Your task to perform on an android device: change keyboard looks Image 0: 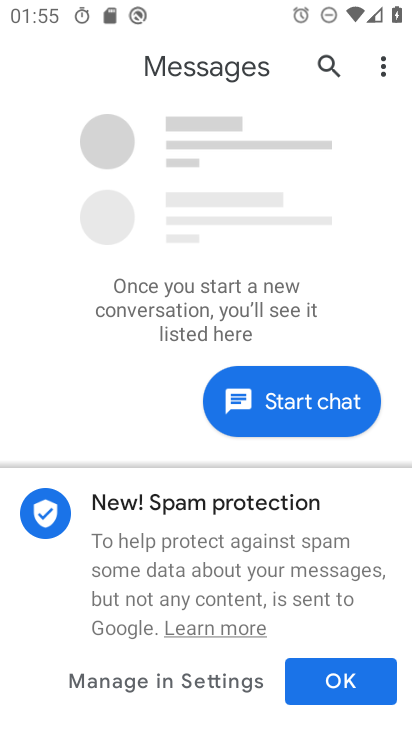
Step 0: press home button
Your task to perform on an android device: change keyboard looks Image 1: 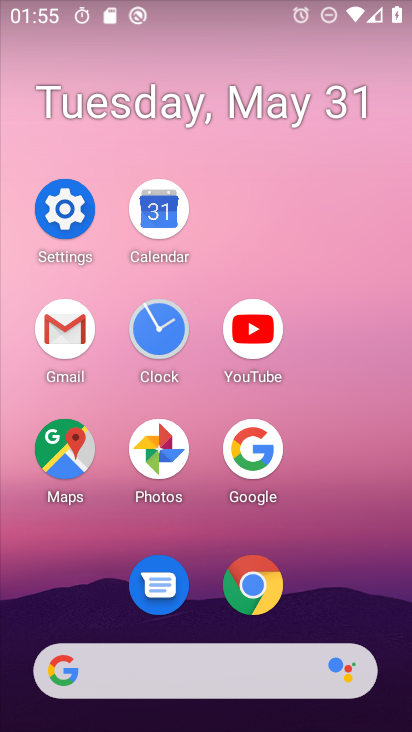
Step 1: click (92, 196)
Your task to perform on an android device: change keyboard looks Image 2: 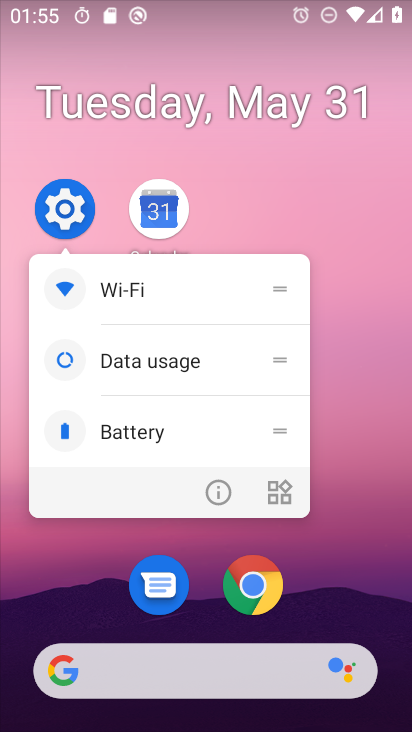
Step 2: click (76, 199)
Your task to perform on an android device: change keyboard looks Image 3: 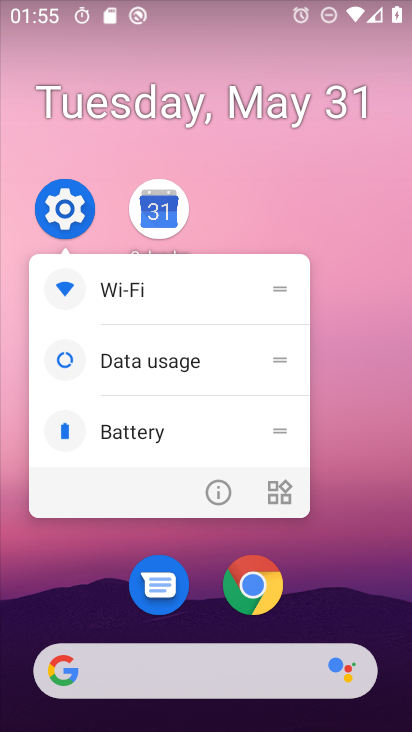
Step 3: click (96, 229)
Your task to perform on an android device: change keyboard looks Image 4: 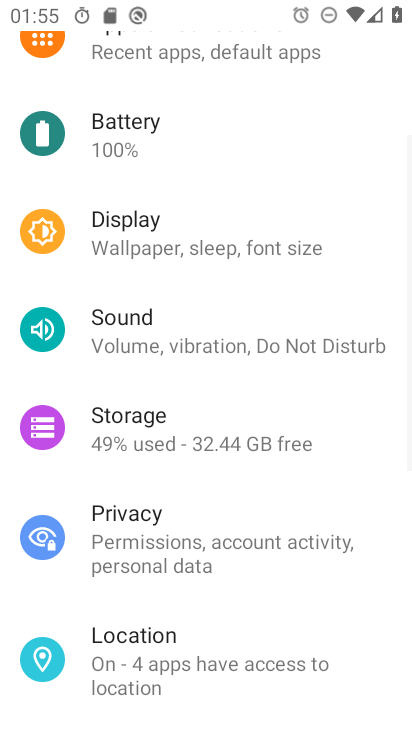
Step 4: drag from (244, 640) to (252, 213)
Your task to perform on an android device: change keyboard looks Image 5: 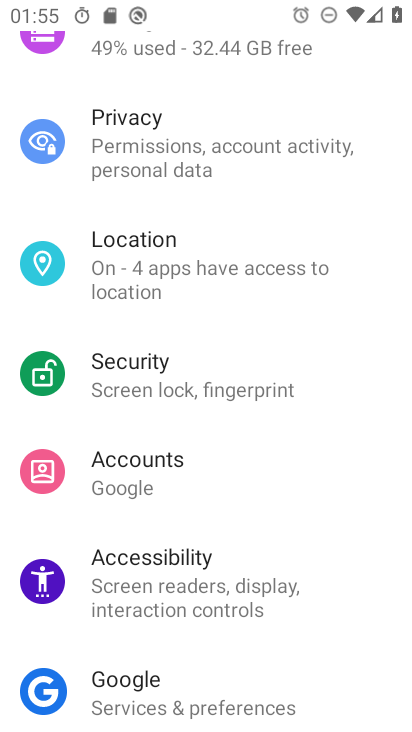
Step 5: drag from (234, 611) to (260, 201)
Your task to perform on an android device: change keyboard looks Image 6: 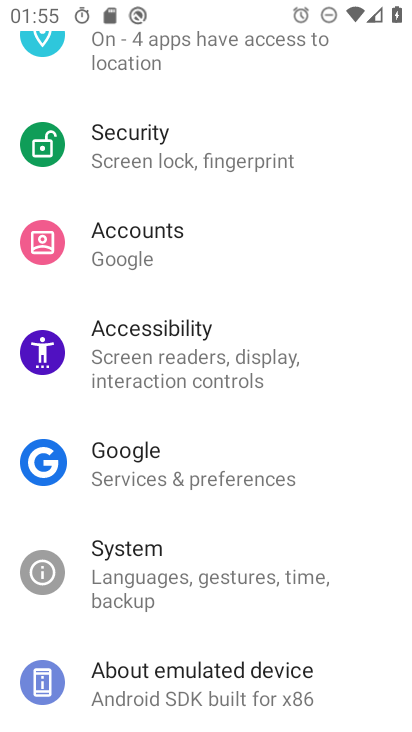
Step 6: click (165, 551)
Your task to perform on an android device: change keyboard looks Image 7: 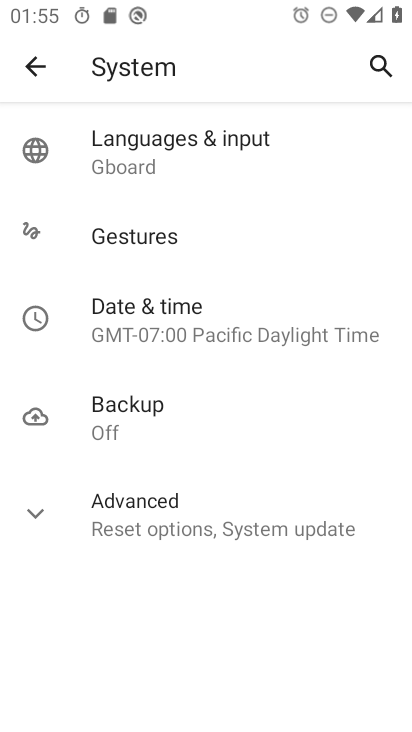
Step 7: click (197, 153)
Your task to perform on an android device: change keyboard looks Image 8: 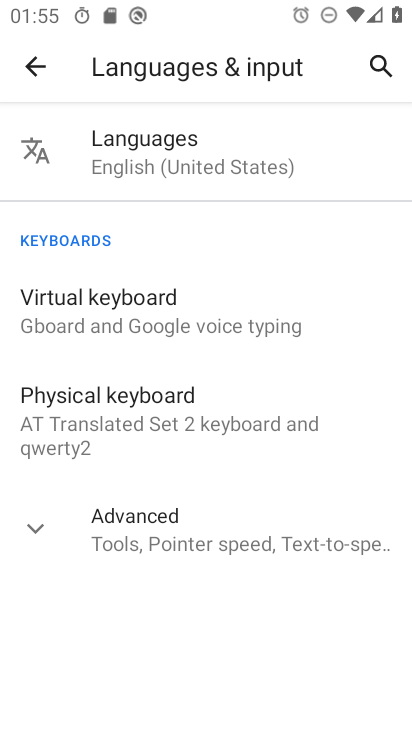
Step 8: click (194, 305)
Your task to perform on an android device: change keyboard looks Image 9: 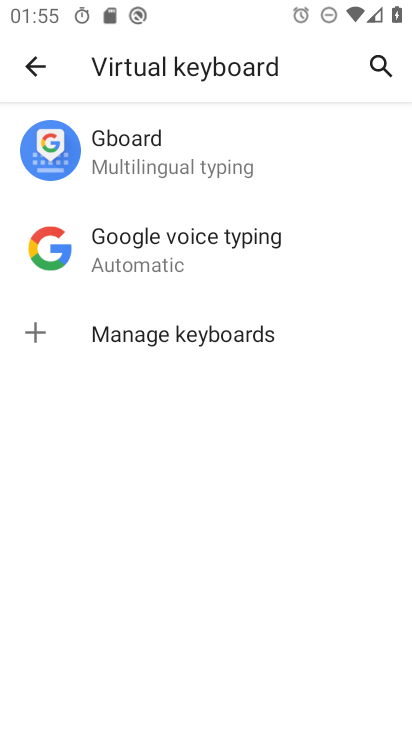
Step 9: click (167, 169)
Your task to perform on an android device: change keyboard looks Image 10: 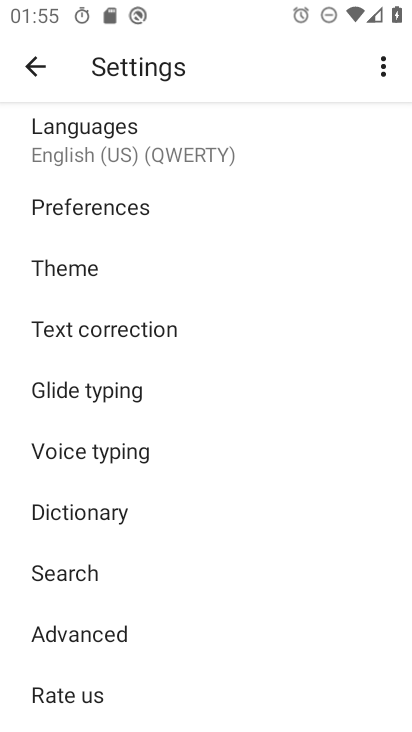
Step 10: click (123, 288)
Your task to perform on an android device: change keyboard looks Image 11: 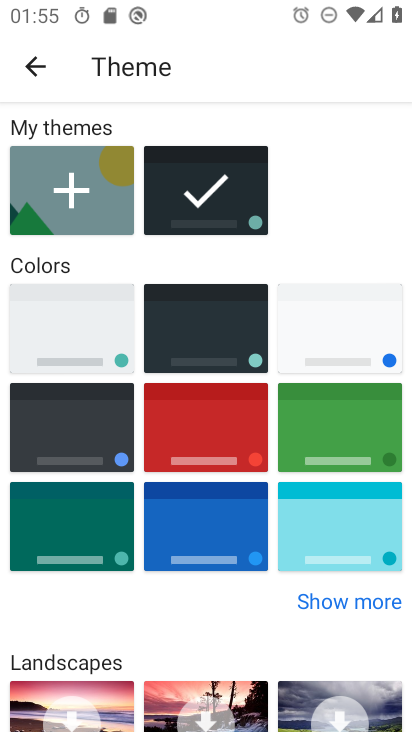
Step 11: click (255, 361)
Your task to perform on an android device: change keyboard looks Image 12: 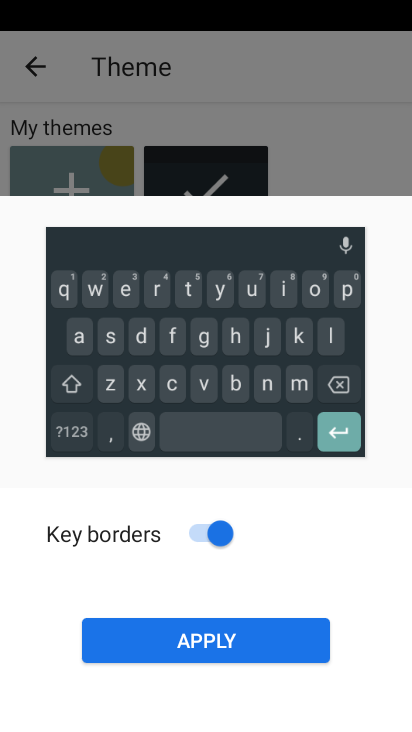
Step 12: click (230, 643)
Your task to perform on an android device: change keyboard looks Image 13: 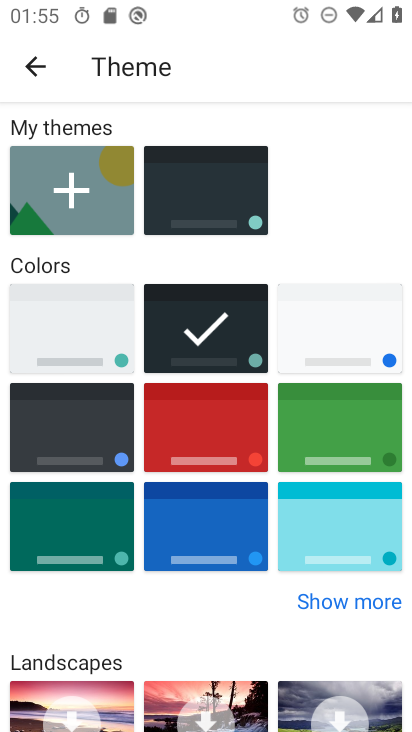
Step 13: task complete